Your task to perform on an android device: check out phone information Image 0: 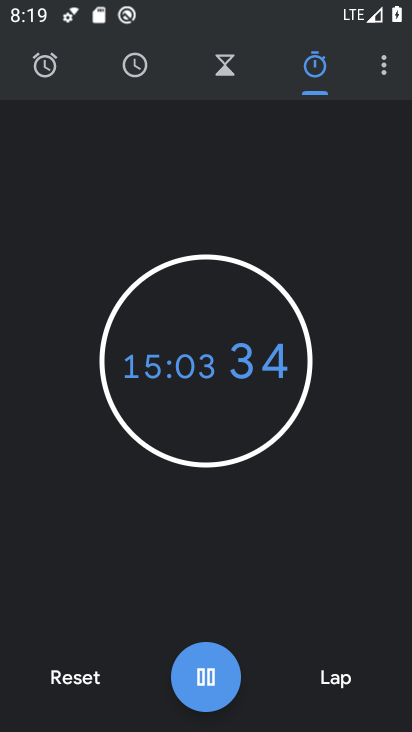
Step 0: press home button
Your task to perform on an android device: check out phone information Image 1: 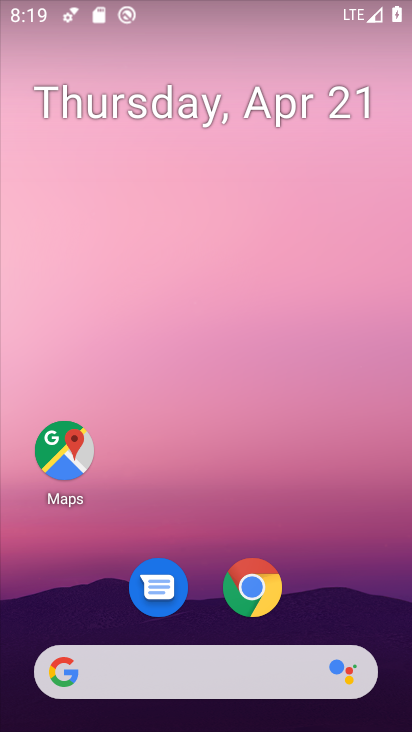
Step 1: drag from (379, 542) to (323, 97)
Your task to perform on an android device: check out phone information Image 2: 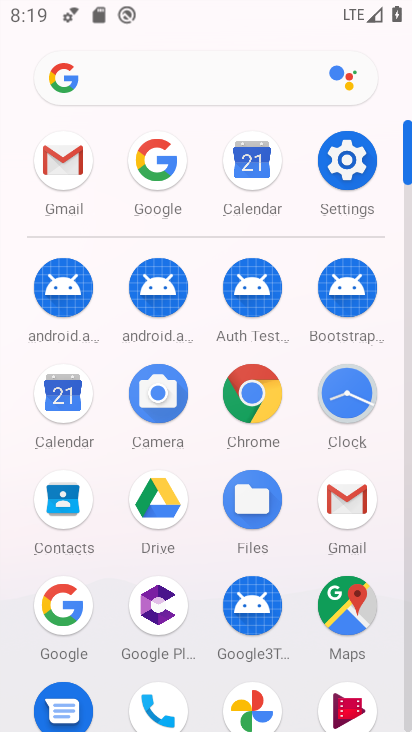
Step 2: click (332, 155)
Your task to perform on an android device: check out phone information Image 3: 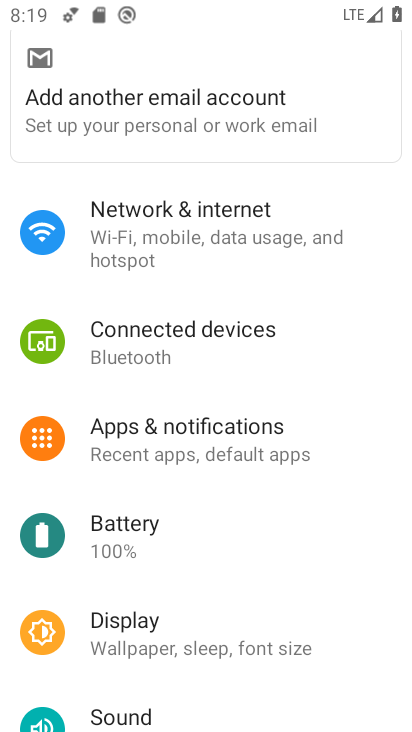
Step 3: drag from (368, 695) to (379, 185)
Your task to perform on an android device: check out phone information Image 4: 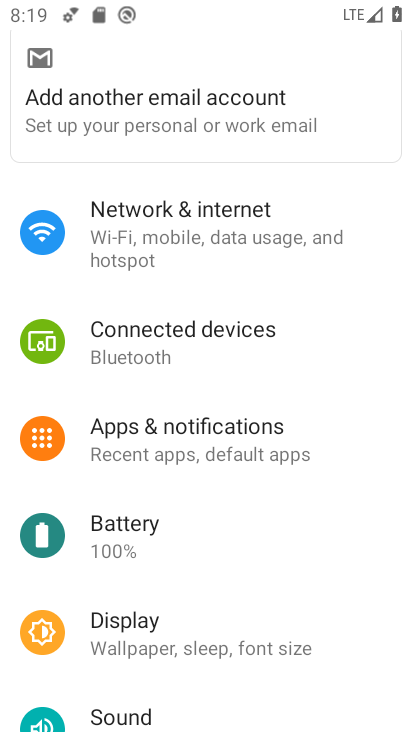
Step 4: drag from (374, 513) to (373, 353)
Your task to perform on an android device: check out phone information Image 5: 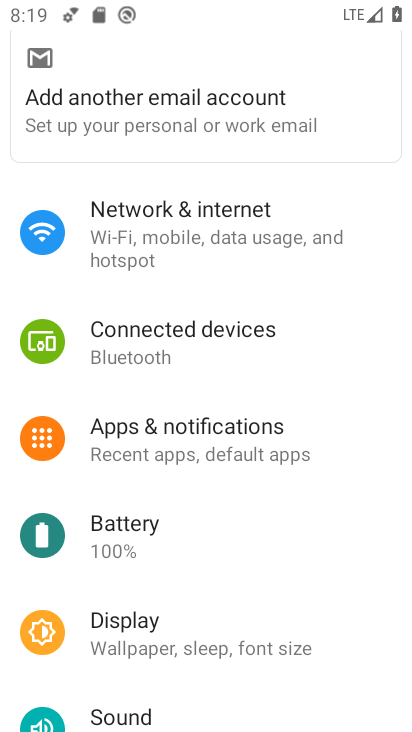
Step 5: drag from (388, 677) to (360, 13)
Your task to perform on an android device: check out phone information Image 6: 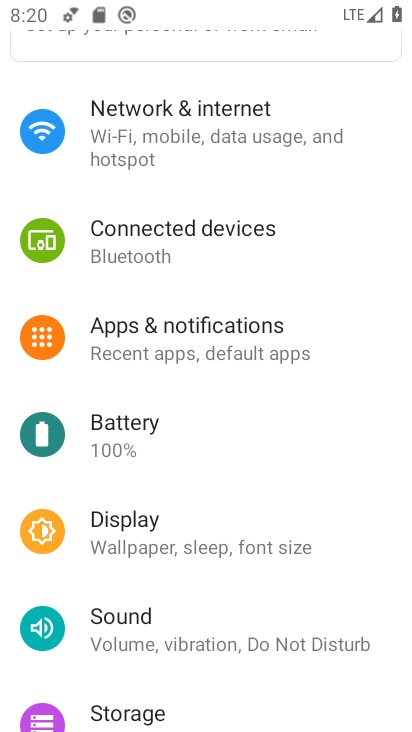
Step 6: drag from (407, 586) to (409, 83)
Your task to perform on an android device: check out phone information Image 7: 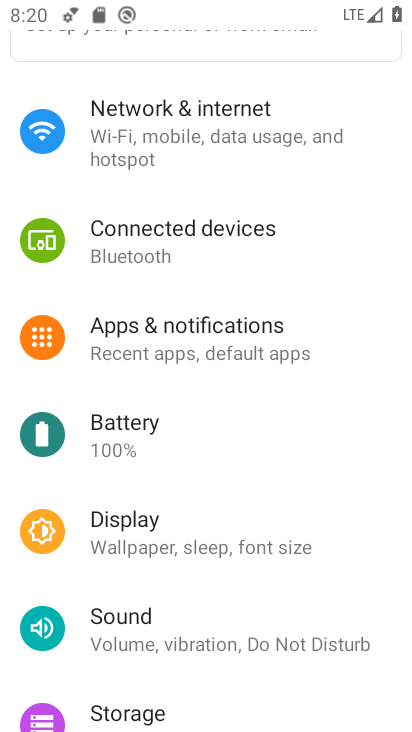
Step 7: drag from (392, 715) to (394, 289)
Your task to perform on an android device: check out phone information Image 8: 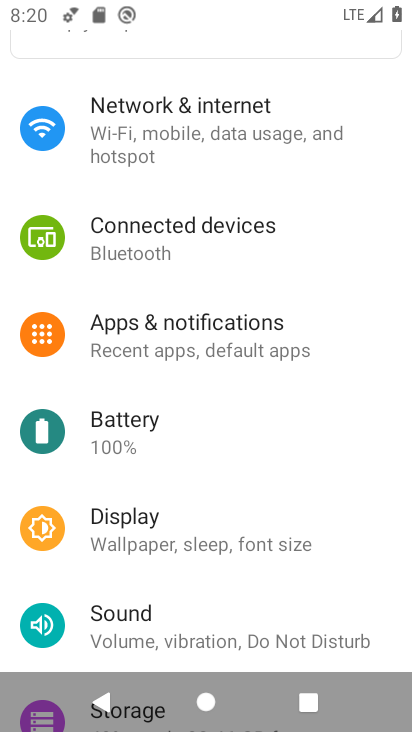
Step 8: drag from (397, 371) to (387, 0)
Your task to perform on an android device: check out phone information Image 9: 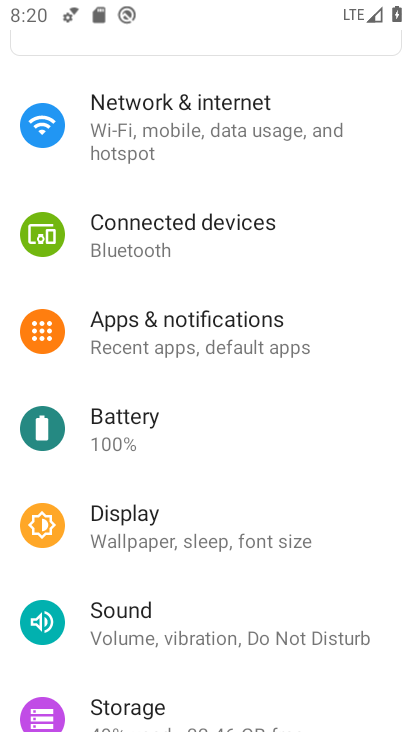
Step 9: drag from (389, 714) to (410, 198)
Your task to perform on an android device: check out phone information Image 10: 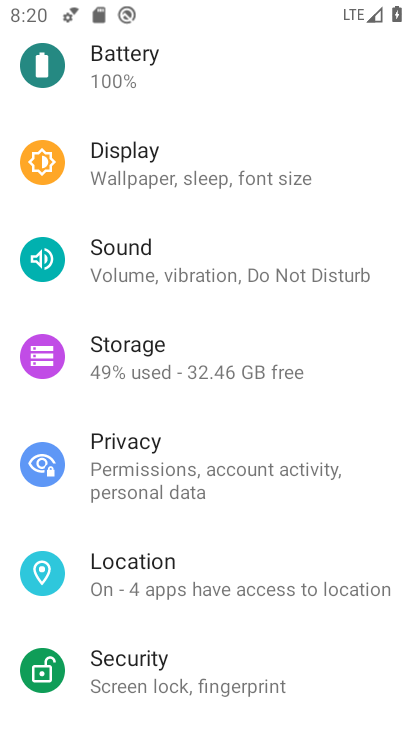
Step 10: drag from (400, 711) to (406, 161)
Your task to perform on an android device: check out phone information Image 11: 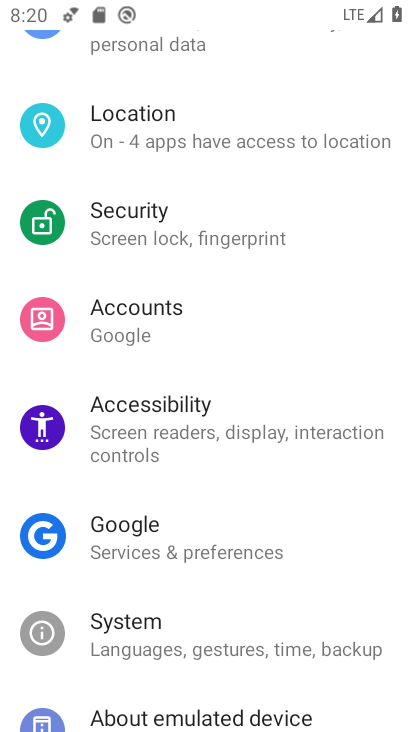
Step 11: click (109, 708)
Your task to perform on an android device: check out phone information Image 12: 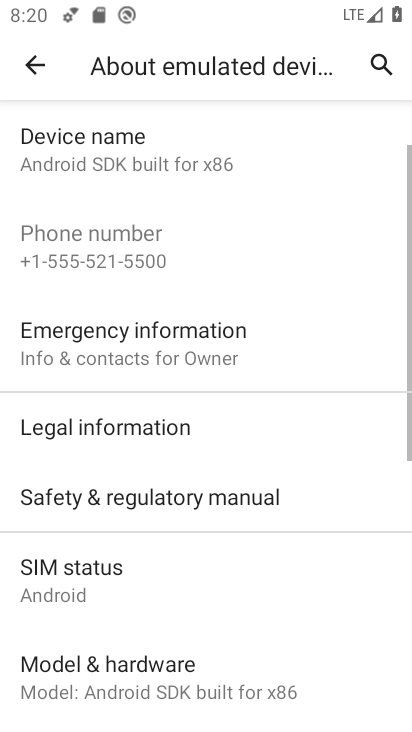
Step 12: task complete